Your task to perform on an android device: open a new tab in the chrome app Image 0: 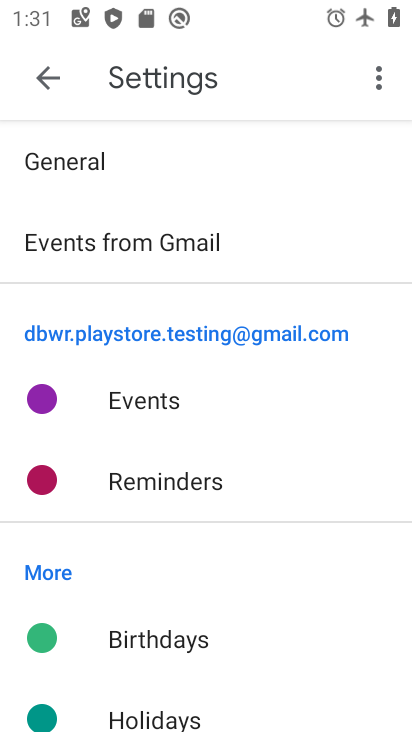
Step 0: press home button
Your task to perform on an android device: open a new tab in the chrome app Image 1: 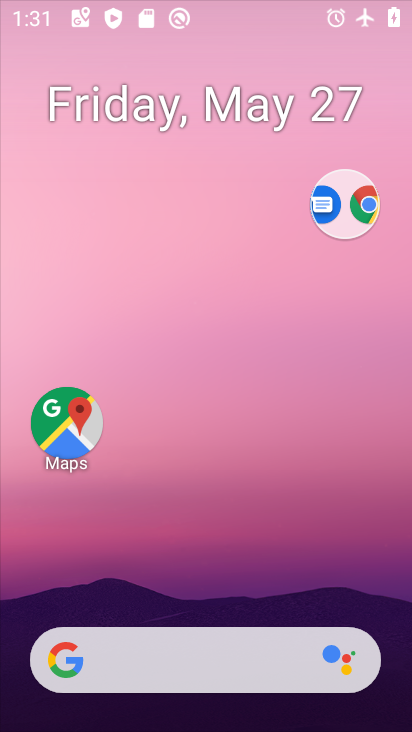
Step 1: drag from (171, 676) to (227, 175)
Your task to perform on an android device: open a new tab in the chrome app Image 2: 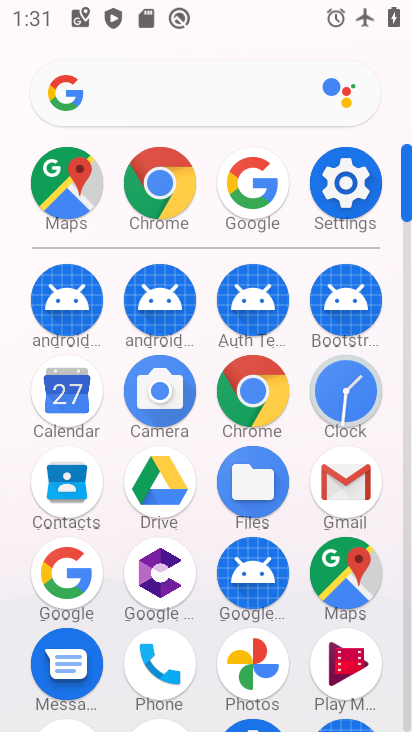
Step 2: click (165, 214)
Your task to perform on an android device: open a new tab in the chrome app Image 3: 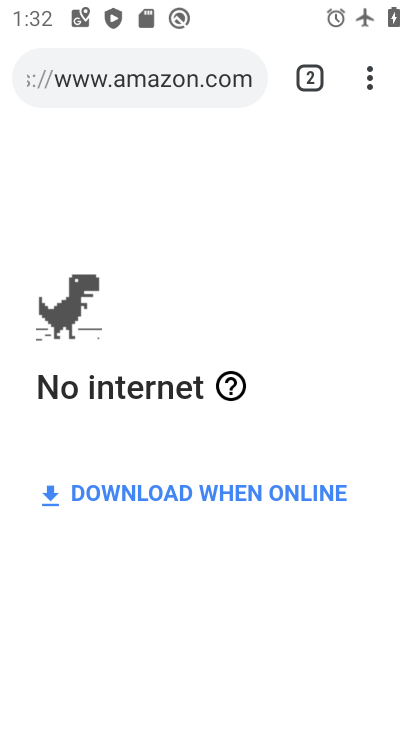
Step 3: drag from (297, 75) to (267, 342)
Your task to perform on an android device: open a new tab in the chrome app Image 4: 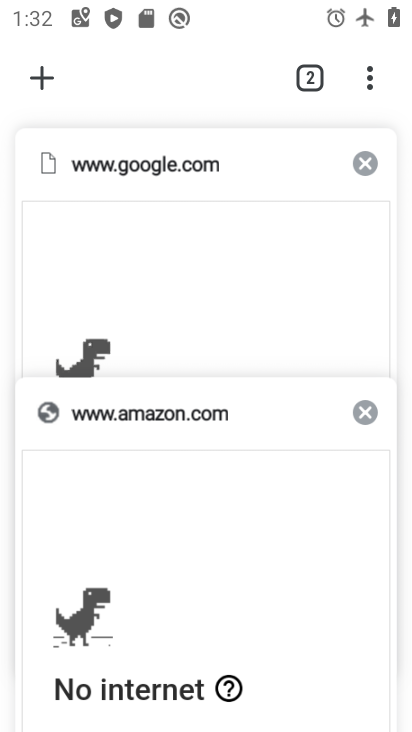
Step 4: click (49, 90)
Your task to perform on an android device: open a new tab in the chrome app Image 5: 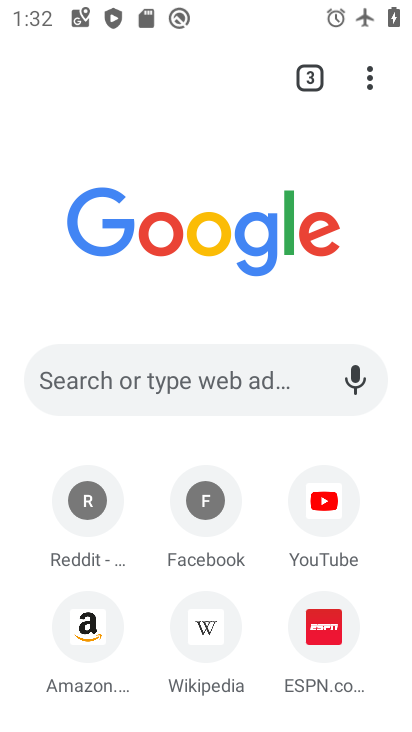
Step 5: task complete